Your task to perform on an android device: toggle sleep mode Image 0: 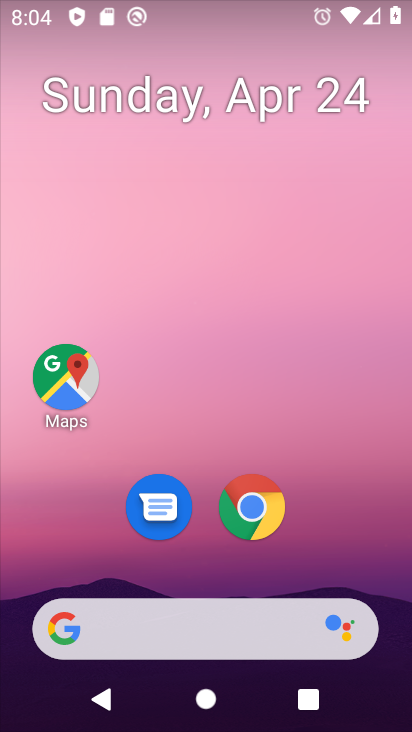
Step 0: drag from (398, 552) to (364, 159)
Your task to perform on an android device: toggle sleep mode Image 1: 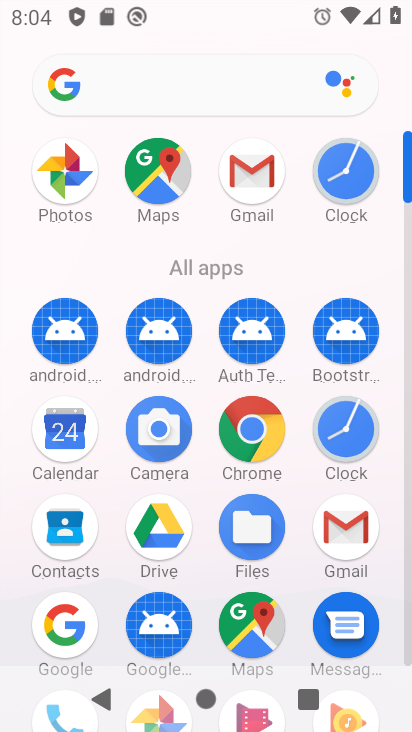
Step 1: click (407, 655)
Your task to perform on an android device: toggle sleep mode Image 2: 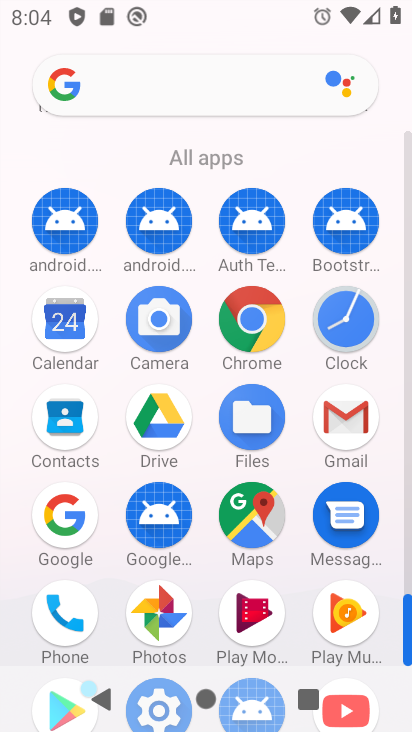
Step 2: drag from (393, 582) to (398, 388)
Your task to perform on an android device: toggle sleep mode Image 3: 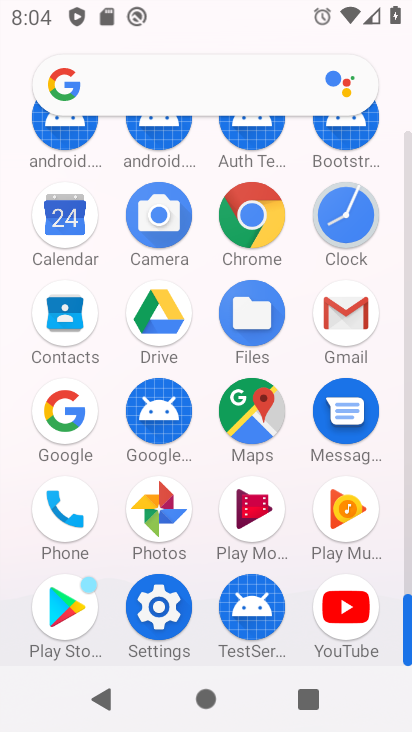
Step 3: click (181, 593)
Your task to perform on an android device: toggle sleep mode Image 4: 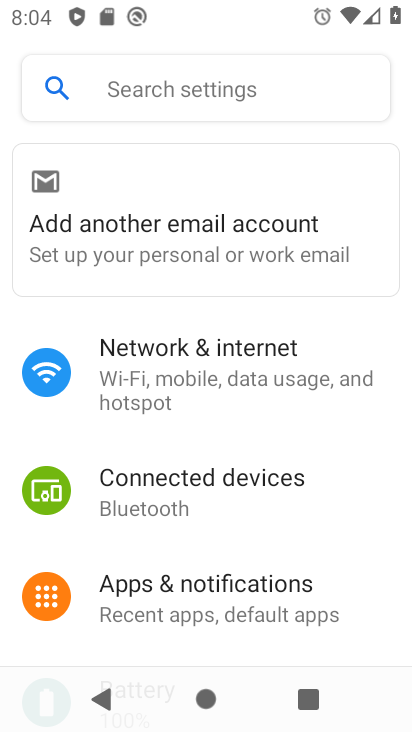
Step 4: drag from (298, 241) to (291, 122)
Your task to perform on an android device: toggle sleep mode Image 5: 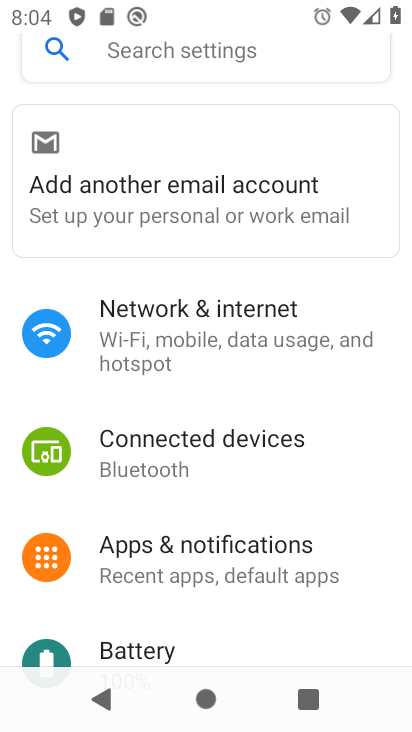
Step 5: drag from (323, 630) to (344, 369)
Your task to perform on an android device: toggle sleep mode Image 6: 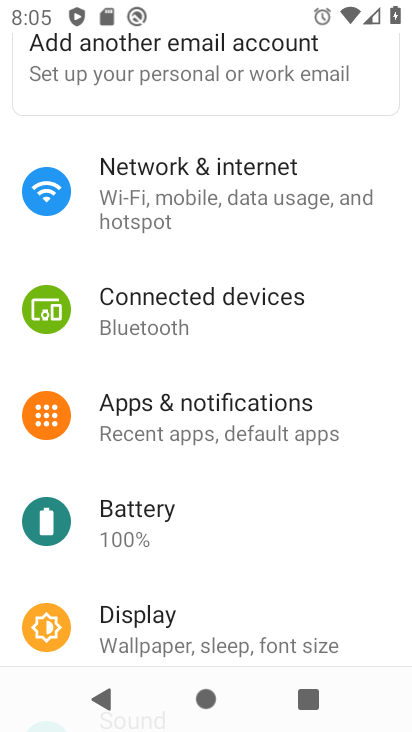
Step 6: click (296, 645)
Your task to perform on an android device: toggle sleep mode Image 7: 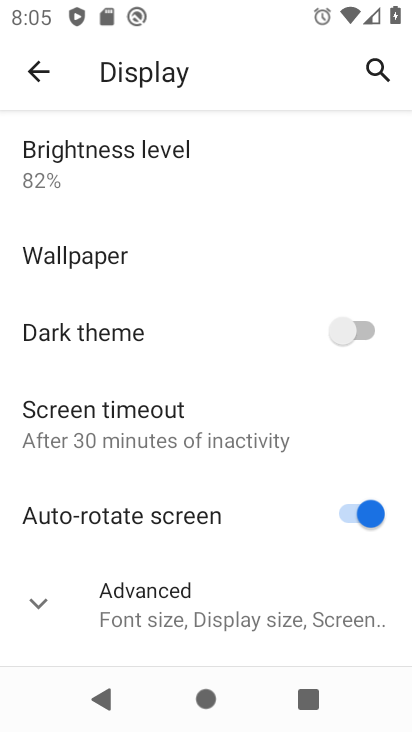
Step 7: click (296, 617)
Your task to perform on an android device: toggle sleep mode Image 8: 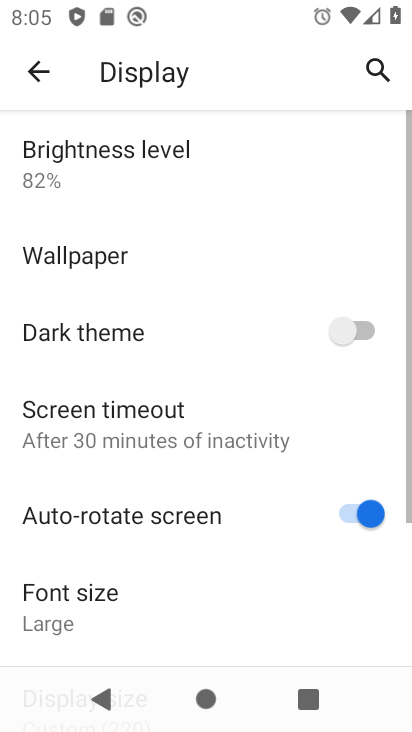
Step 8: task complete